Your task to perform on an android device: toggle sleep mode Image 0: 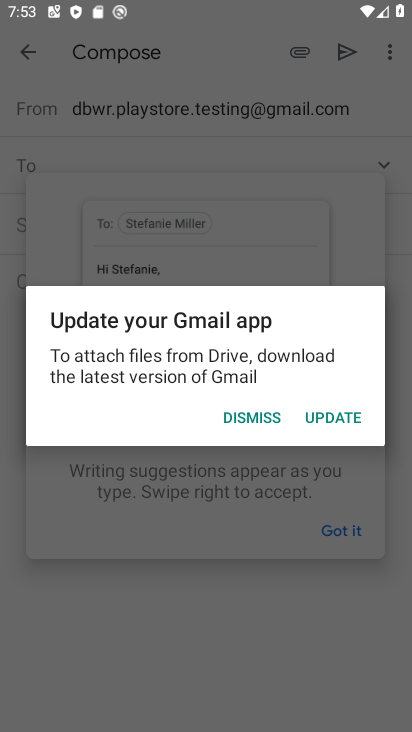
Step 0: press home button
Your task to perform on an android device: toggle sleep mode Image 1: 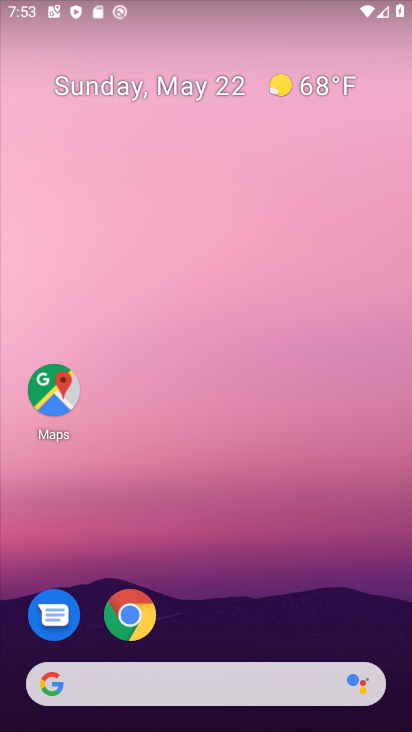
Step 1: drag from (202, 644) to (310, 13)
Your task to perform on an android device: toggle sleep mode Image 2: 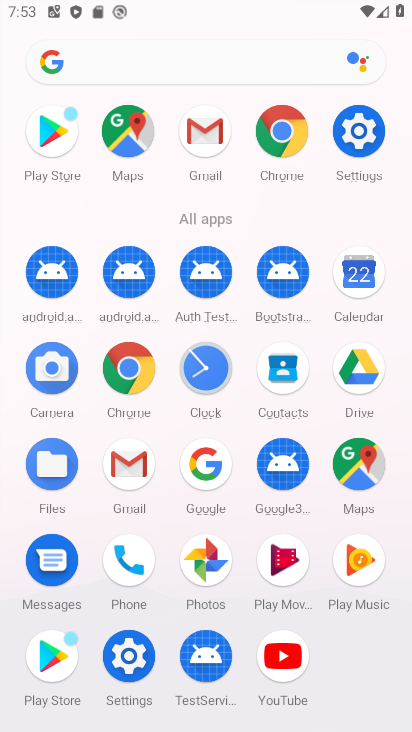
Step 2: click (376, 135)
Your task to perform on an android device: toggle sleep mode Image 3: 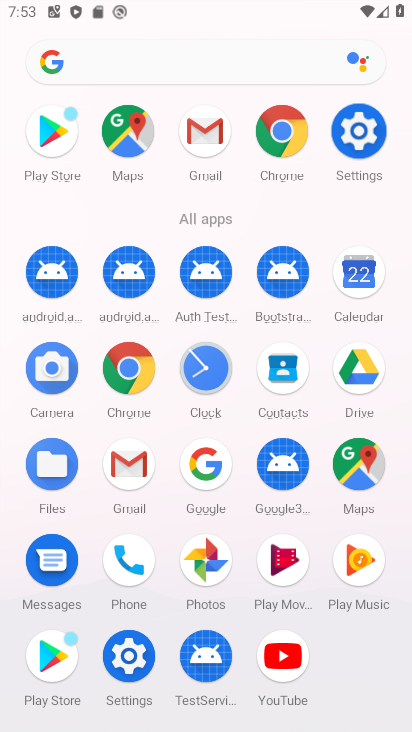
Step 3: click (376, 135)
Your task to perform on an android device: toggle sleep mode Image 4: 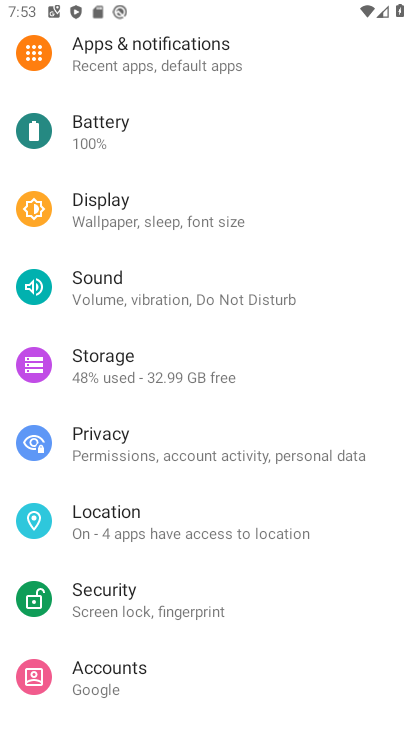
Step 4: click (97, 234)
Your task to perform on an android device: toggle sleep mode Image 5: 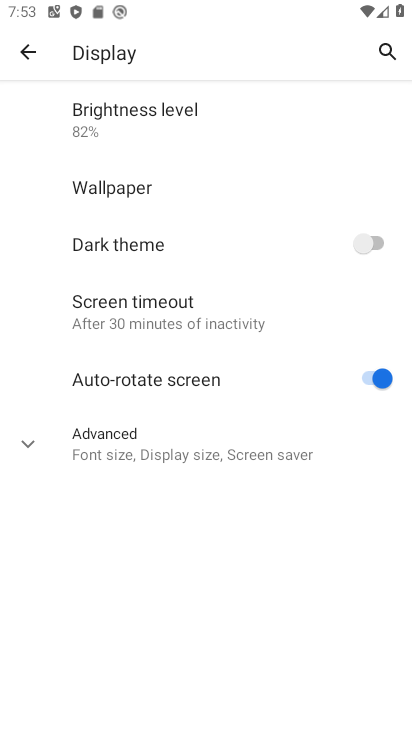
Step 5: task complete